Your task to perform on an android device: Go to Yahoo.com Image 0: 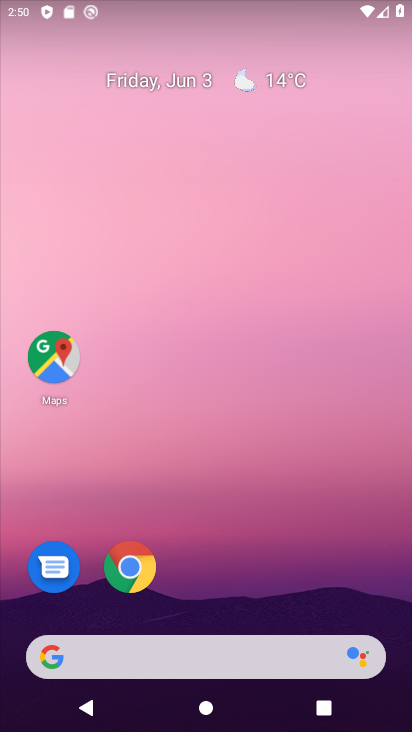
Step 0: click (150, 561)
Your task to perform on an android device: Go to Yahoo.com Image 1: 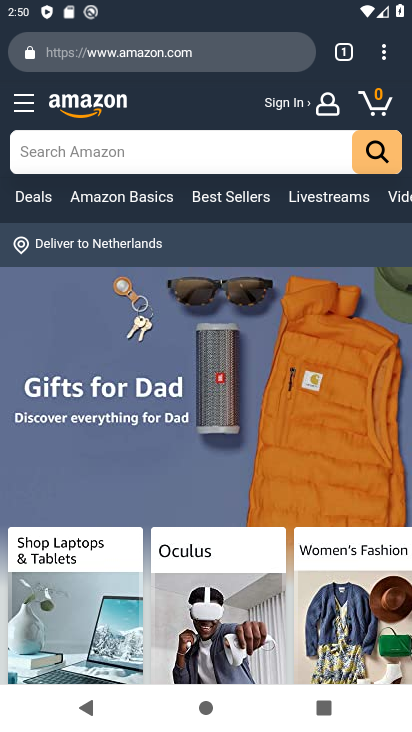
Step 1: click (172, 60)
Your task to perform on an android device: Go to Yahoo.com Image 2: 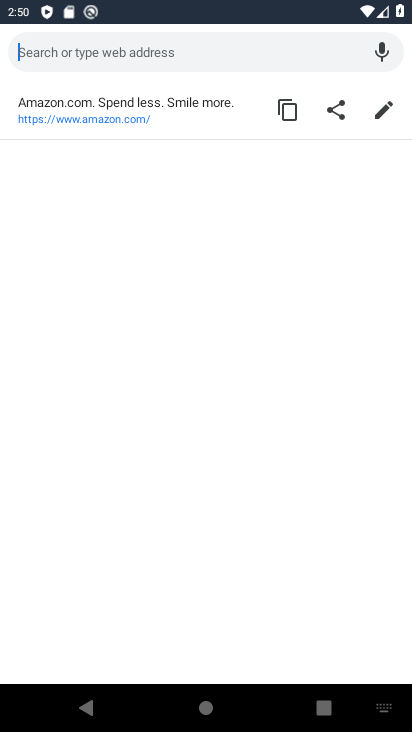
Step 2: type "Yahoo.com"
Your task to perform on an android device: Go to Yahoo.com Image 3: 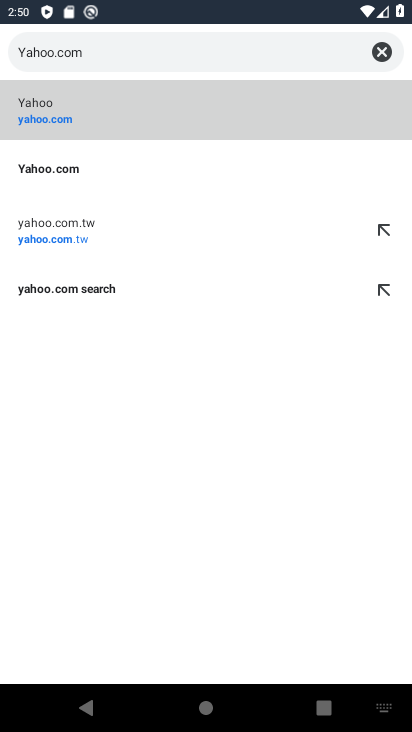
Step 3: click (155, 121)
Your task to perform on an android device: Go to Yahoo.com Image 4: 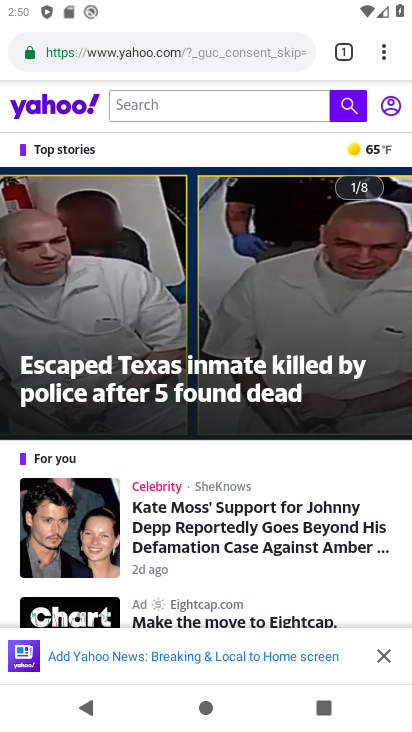
Step 4: task complete